Your task to perform on an android device: Do I have any events today? Image 0: 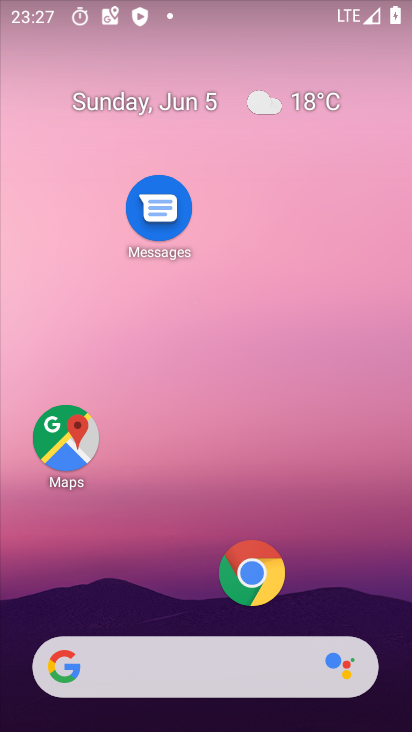
Step 0: drag from (165, 491) to (163, 206)
Your task to perform on an android device: Do I have any events today? Image 1: 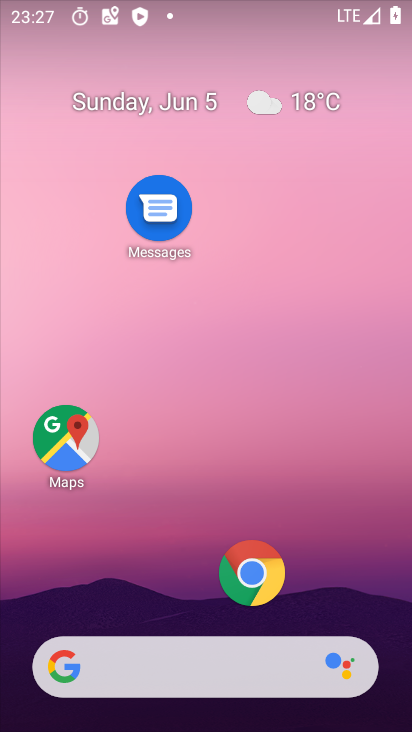
Step 1: drag from (203, 666) to (173, 144)
Your task to perform on an android device: Do I have any events today? Image 2: 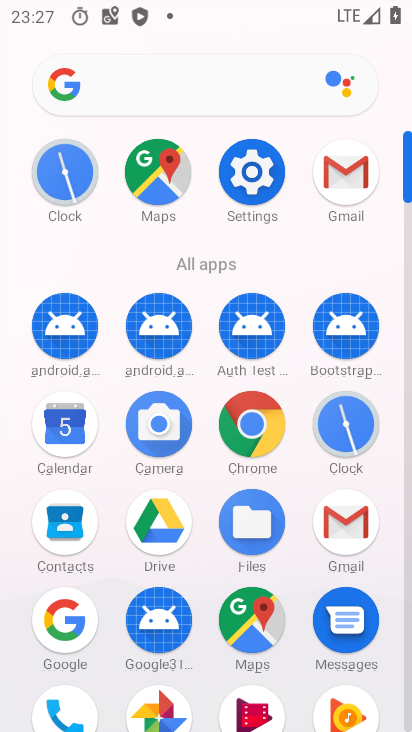
Step 2: click (81, 451)
Your task to perform on an android device: Do I have any events today? Image 3: 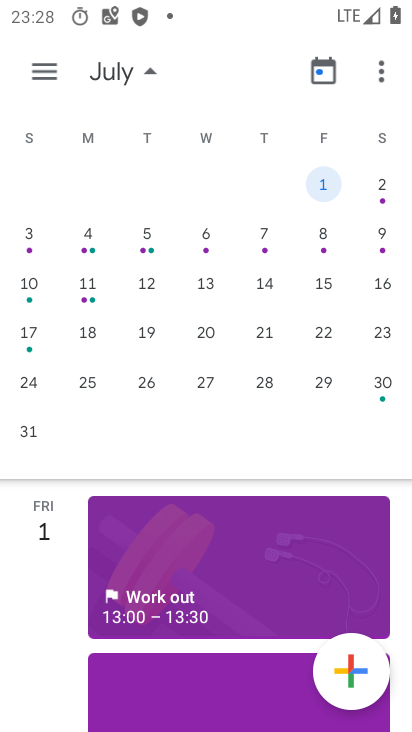
Step 3: click (42, 67)
Your task to perform on an android device: Do I have any events today? Image 4: 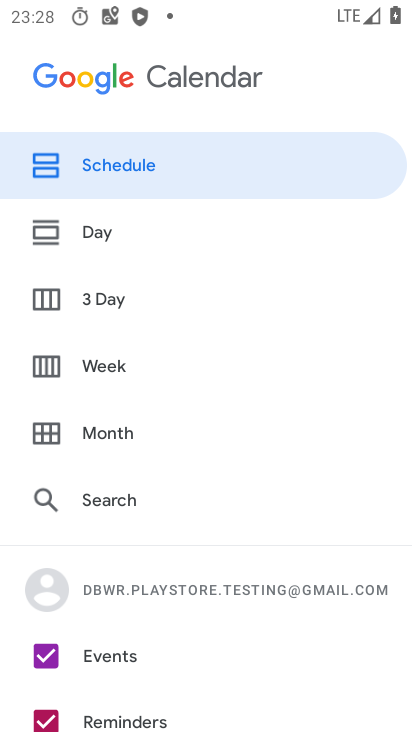
Step 4: click (117, 159)
Your task to perform on an android device: Do I have any events today? Image 5: 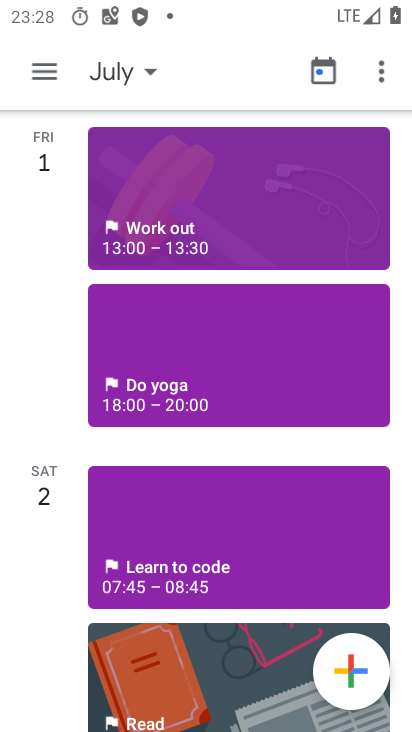
Step 5: click (142, 84)
Your task to perform on an android device: Do I have any events today? Image 6: 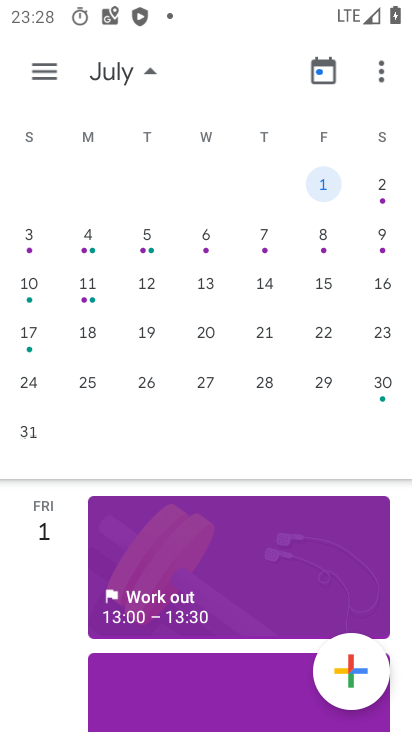
Step 6: drag from (70, 240) to (407, 177)
Your task to perform on an android device: Do I have any events today? Image 7: 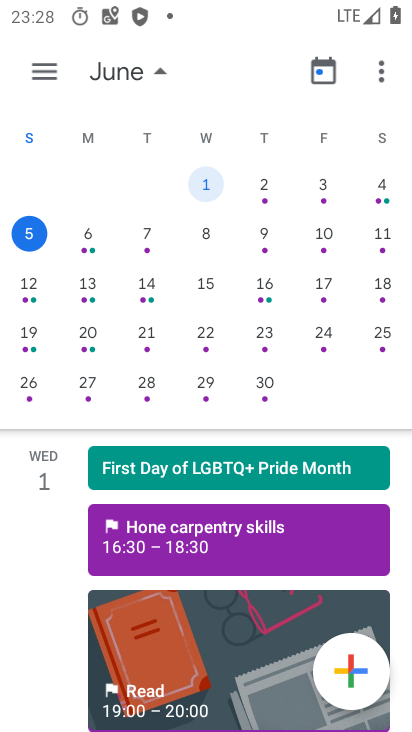
Step 7: click (28, 245)
Your task to perform on an android device: Do I have any events today? Image 8: 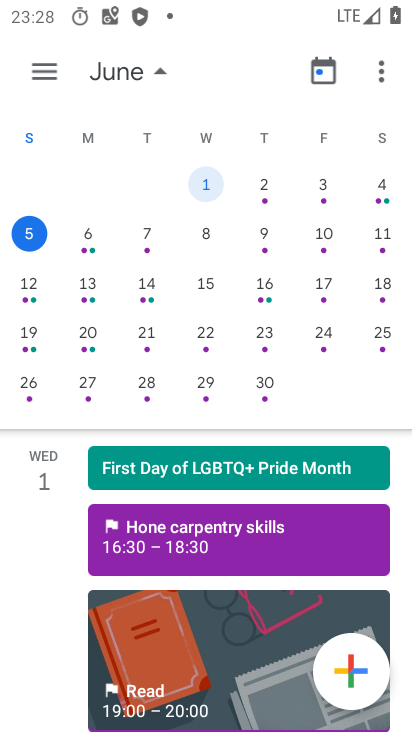
Step 8: task complete